Your task to perform on an android device: Go to eBay Image 0: 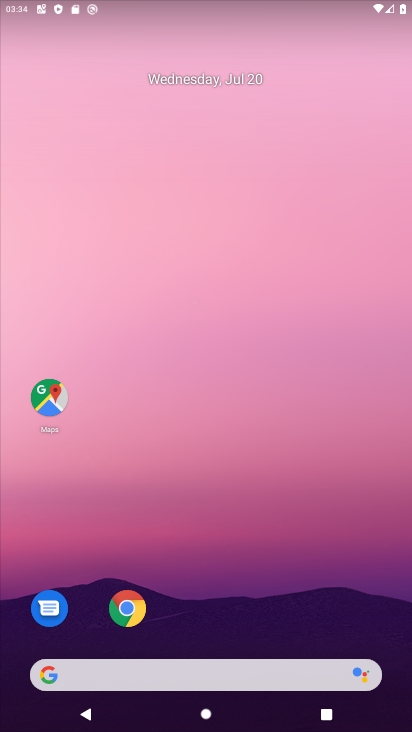
Step 0: click (134, 600)
Your task to perform on an android device: Go to eBay Image 1: 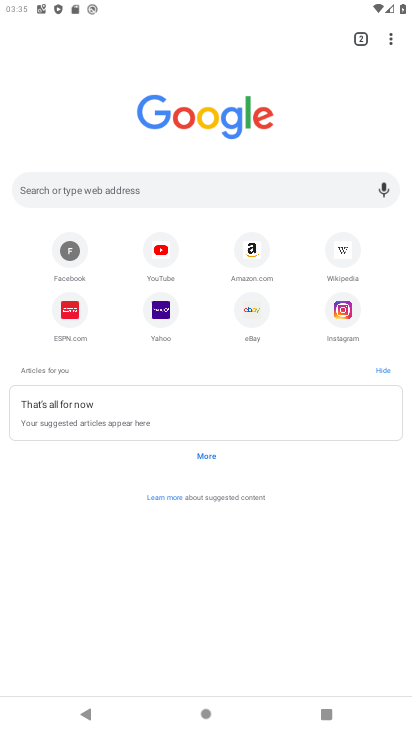
Step 1: click (179, 196)
Your task to perform on an android device: Go to eBay Image 2: 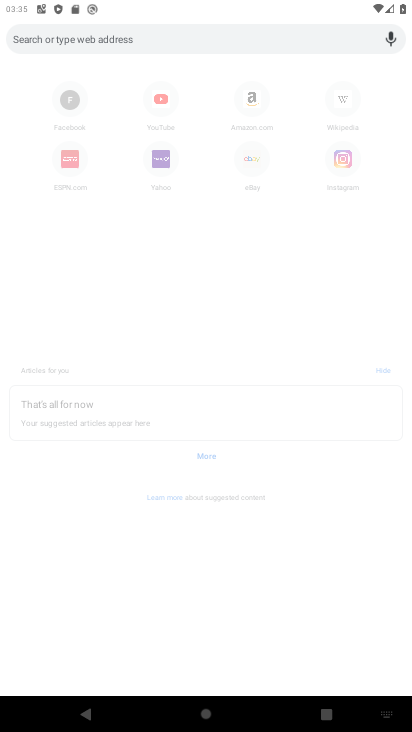
Step 2: type "eBay"
Your task to perform on an android device: Go to eBay Image 3: 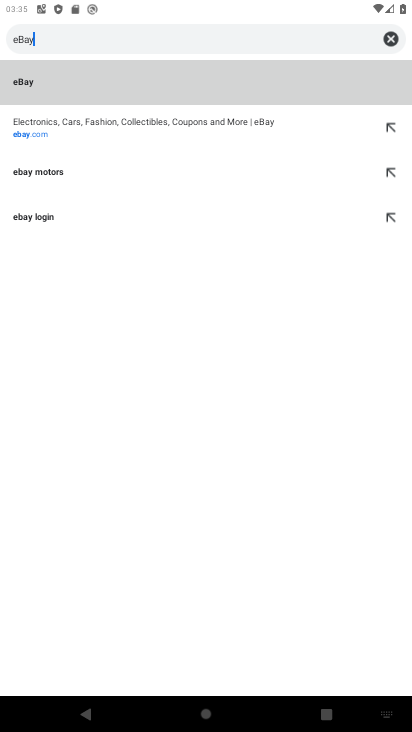
Step 3: click (140, 93)
Your task to perform on an android device: Go to eBay Image 4: 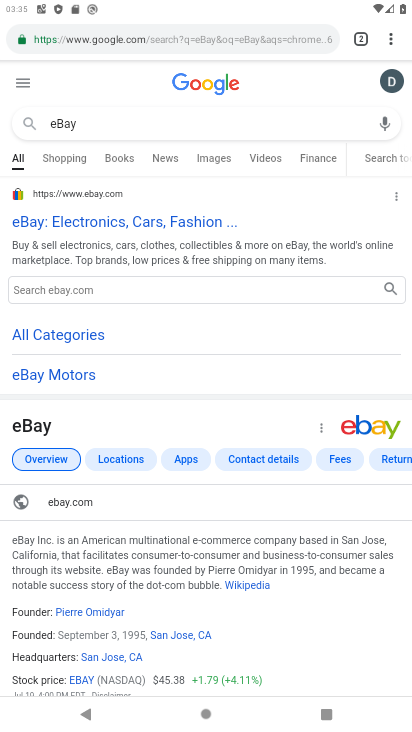
Step 4: task complete